Your task to perform on an android device: Open notification settings Image 0: 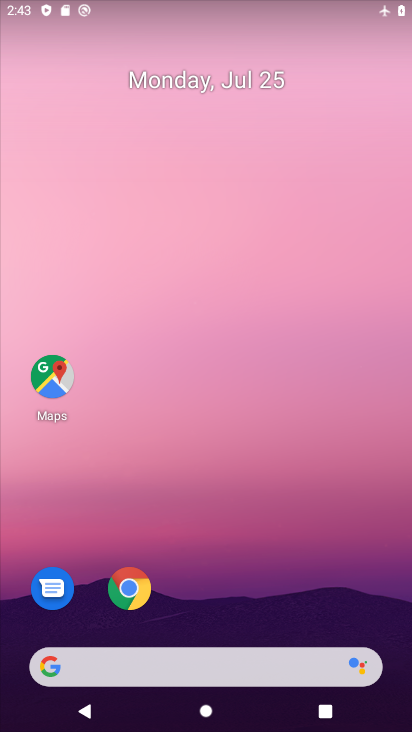
Step 0: drag from (236, 716) to (236, 408)
Your task to perform on an android device: Open notification settings Image 1: 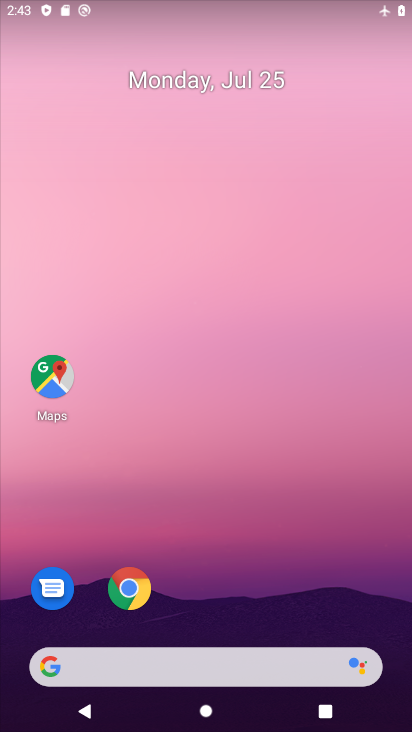
Step 1: drag from (236, 726) to (236, 48)
Your task to perform on an android device: Open notification settings Image 2: 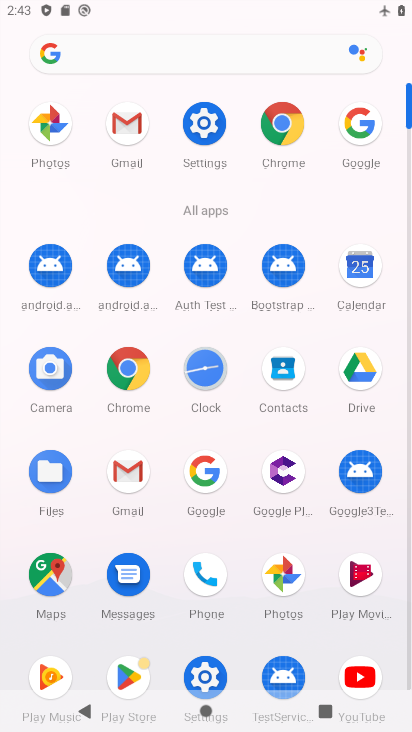
Step 2: click (192, 123)
Your task to perform on an android device: Open notification settings Image 3: 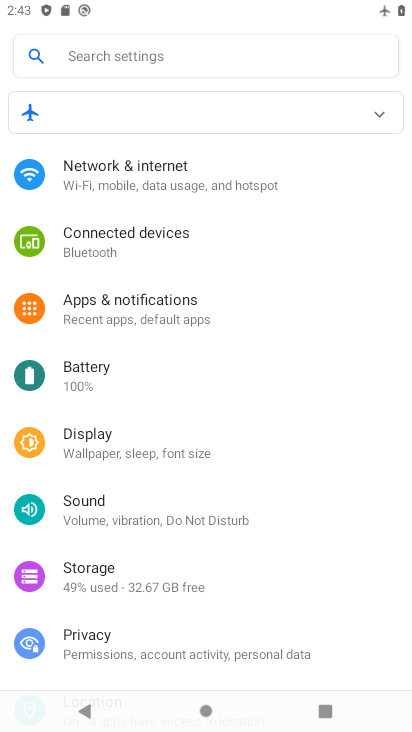
Step 3: click (156, 309)
Your task to perform on an android device: Open notification settings Image 4: 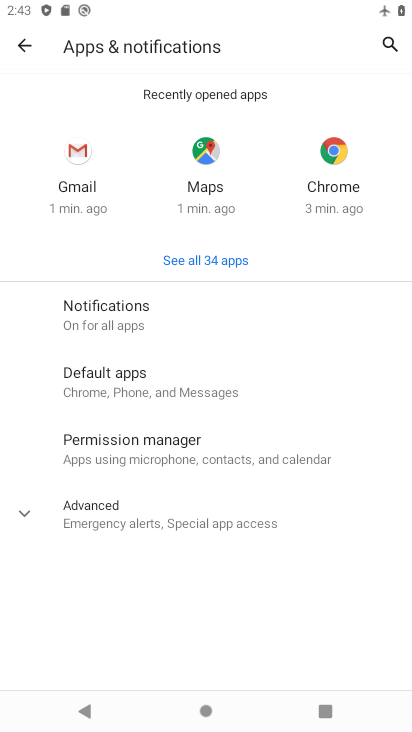
Step 4: click (97, 321)
Your task to perform on an android device: Open notification settings Image 5: 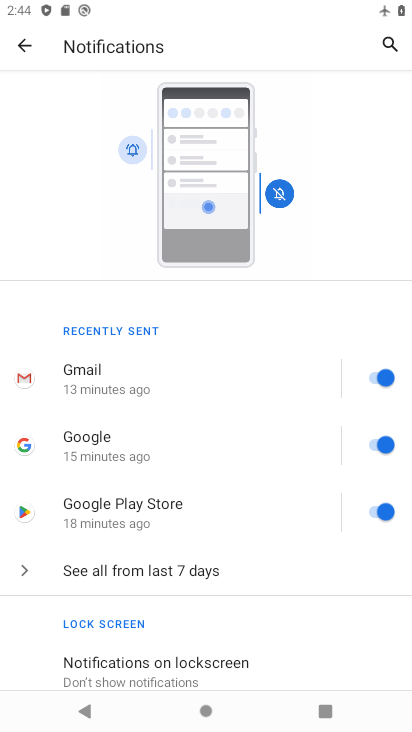
Step 5: drag from (227, 642) to (205, 249)
Your task to perform on an android device: Open notification settings Image 6: 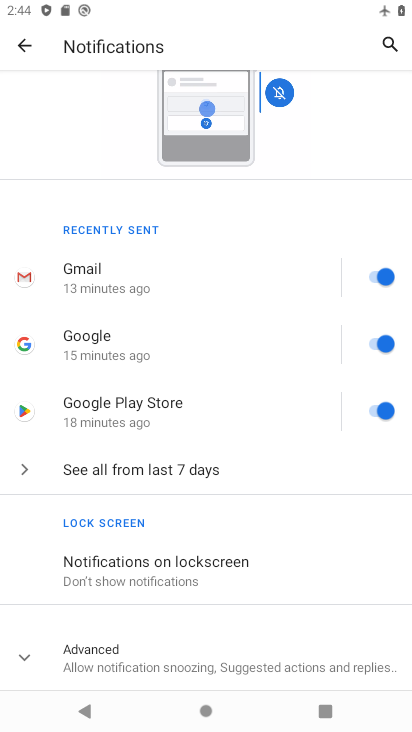
Step 6: drag from (194, 591) to (194, 356)
Your task to perform on an android device: Open notification settings Image 7: 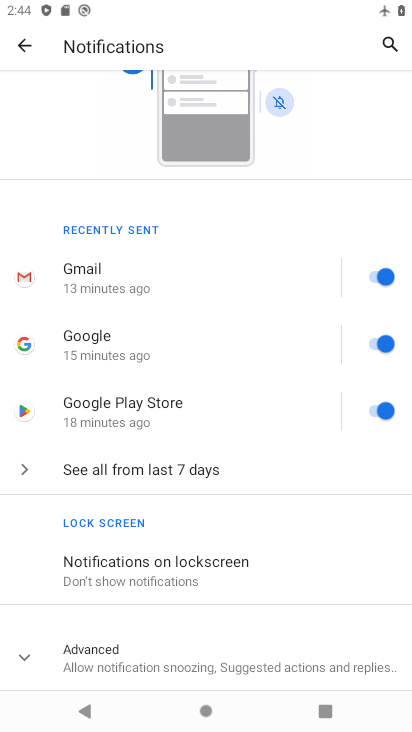
Step 7: click (124, 657)
Your task to perform on an android device: Open notification settings Image 8: 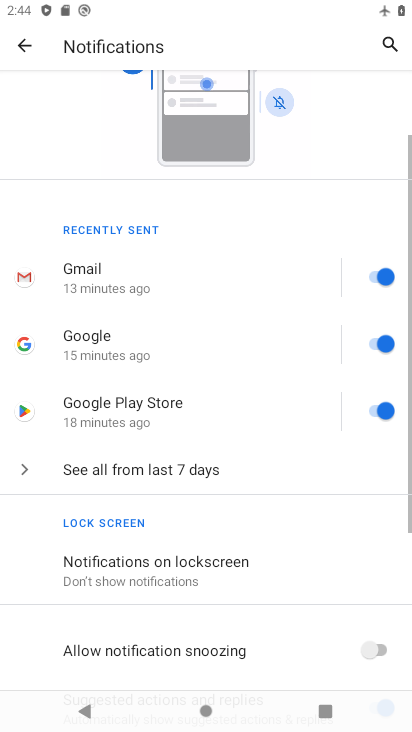
Step 8: task complete